Your task to perform on an android device: delete browsing data in the chrome app Image 0: 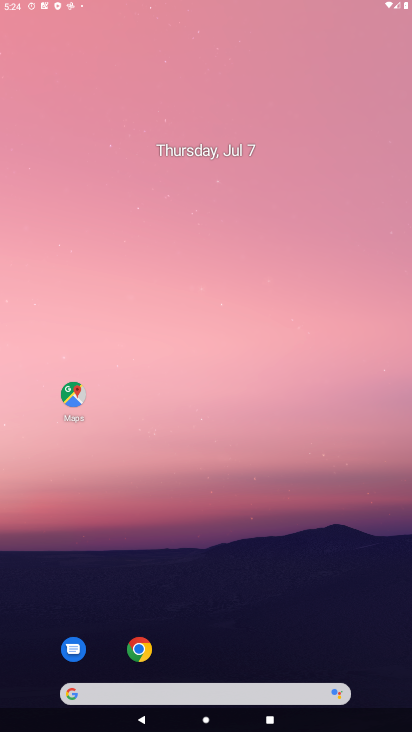
Step 0: click (213, 22)
Your task to perform on an android device: delete browsing data in the chrome app Image 1: 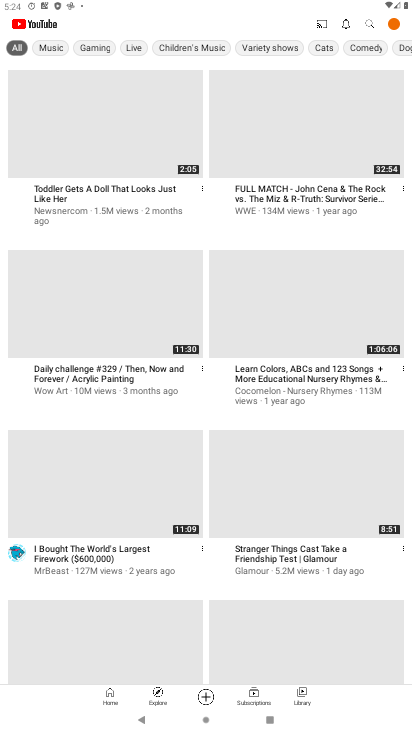
Step 1: press home button
Your task to perform on an android device: delete browsing data in the chrome app Image 2: 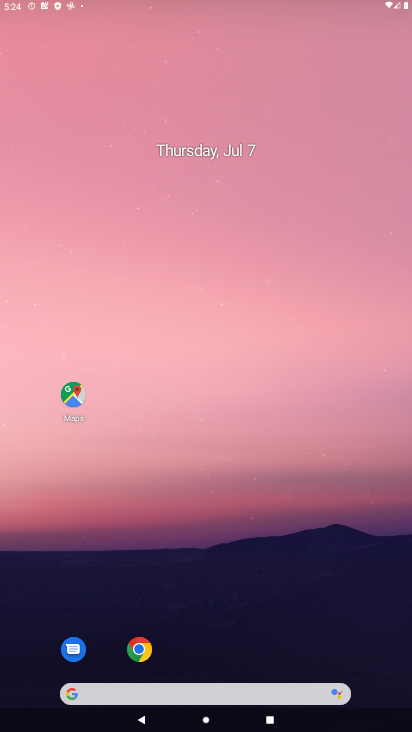
Step 2: drag from (369, 667) to (218, 56)
Your task to perform on an android device: delete browsing data in the chrome app Image 3: 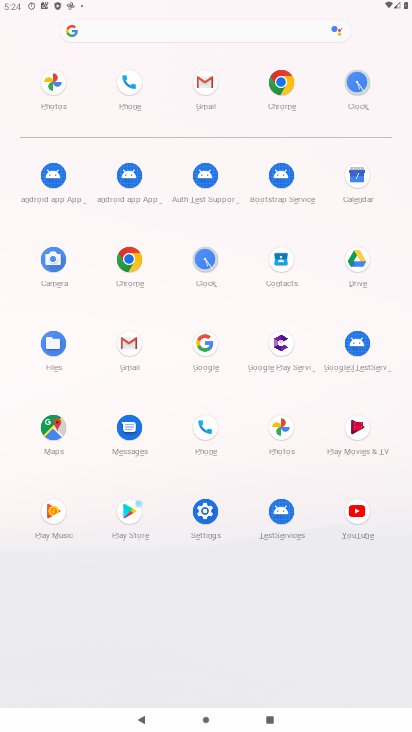
Step 3: click (282, 85)
Your task to perform on an android device: delete browsing data in the chrome app Image 4: 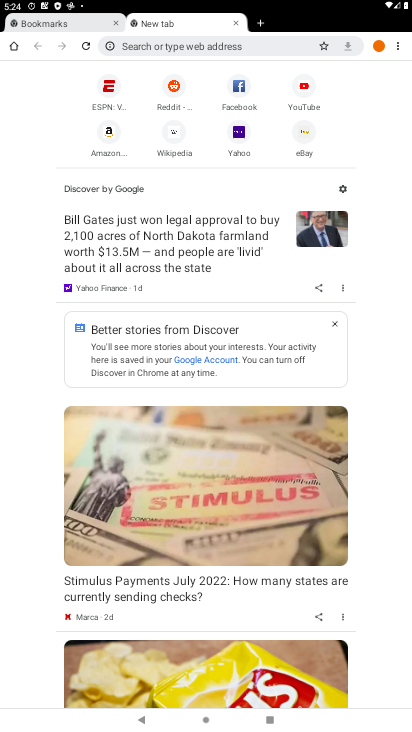
Step 4: click (401, 44)
Your task to perform on an android device: delete browsing data in the chrome app Image 5: 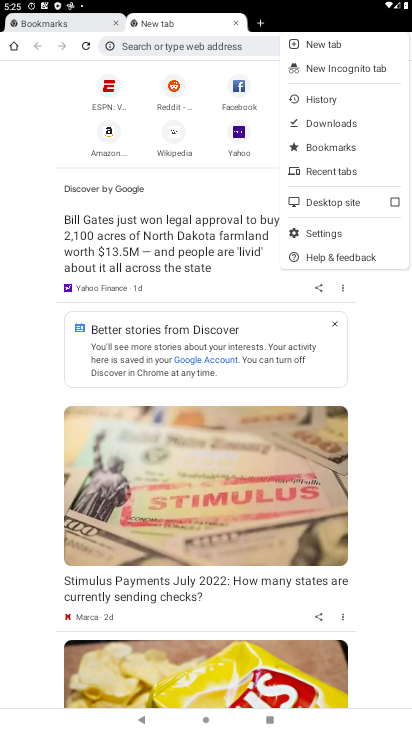
Step 5: click (329, 95)
Your task to perform on an android device: delete browsing data in the chrome app Image 6: 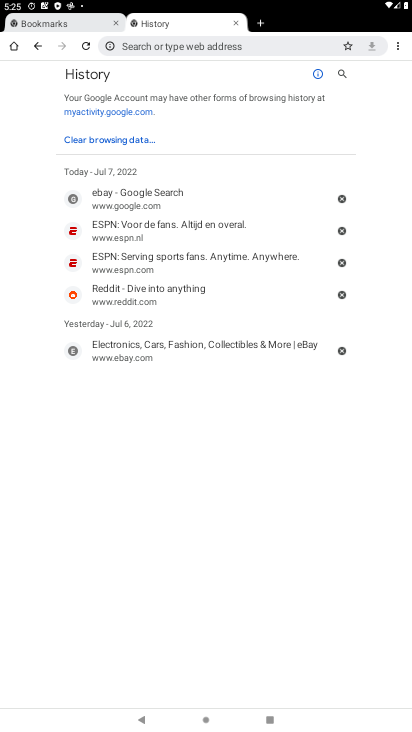
Step 6: click (83, 146)
Your task to perform on an android device: delete browsing data in the chrome app Image 7: 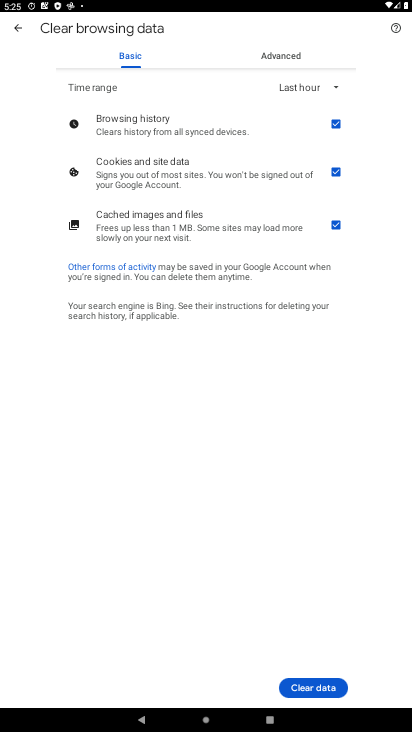
Step 7: click (319, 677)
Your task to perform on an android device: delete browsing data in the chrome app Image 8: 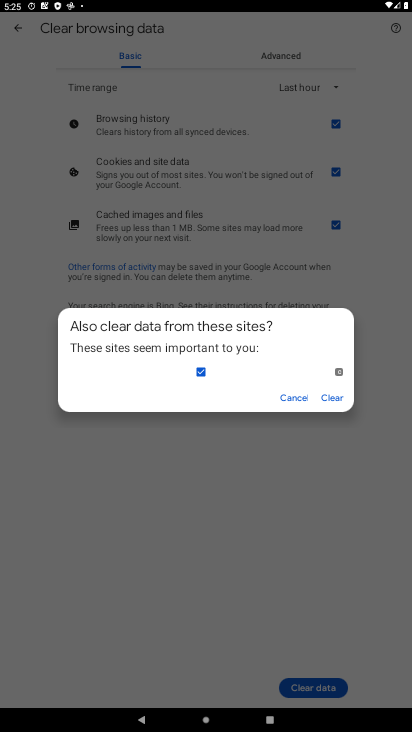
Step 8: click (333, 405)
Your task to perform on an android device: delete browsing data in the chrome app Image 9: 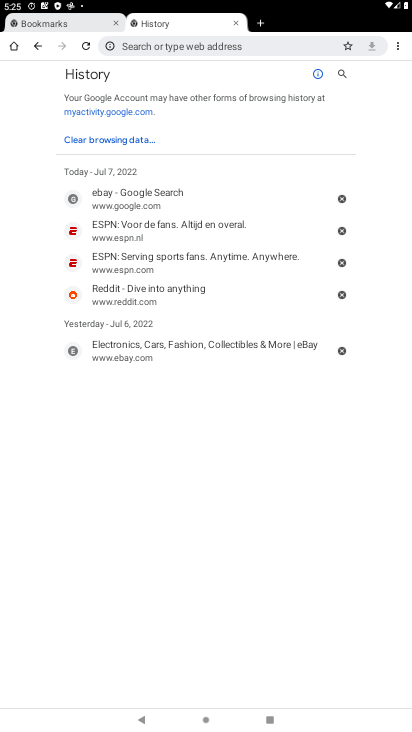
Step 9: click (90, 131)
Your task to perform on an android device: delete browsing data in the chrome app Image 10: 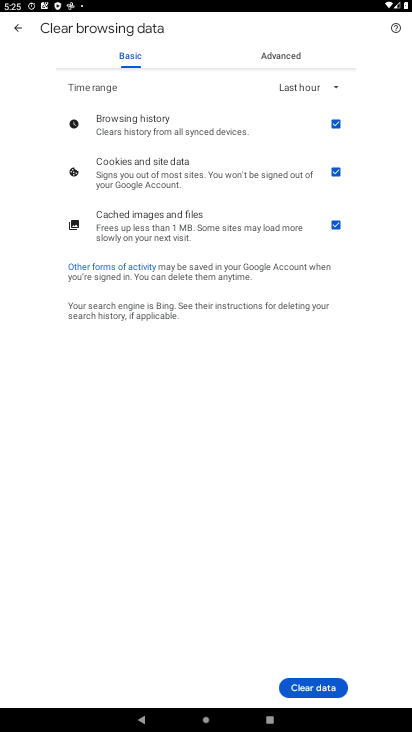
Step 10: click (299, 678)
Your task to perform on an android device: delete browsing data in the chrome app Image 11: 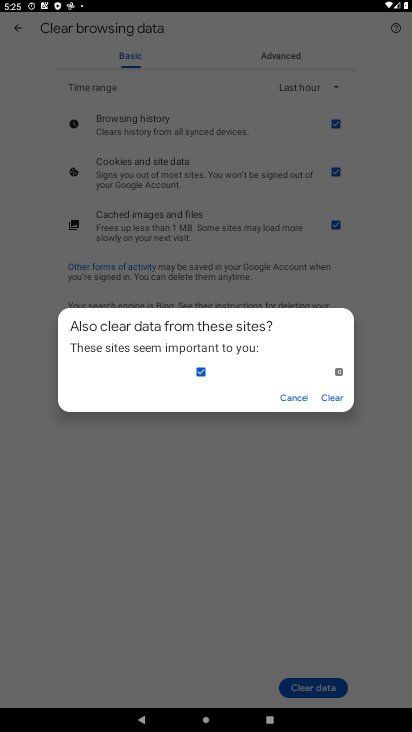
Step 11: click (335, 405)
Your task to perform on an android device: delete browsing data in the chrome app Image 12: 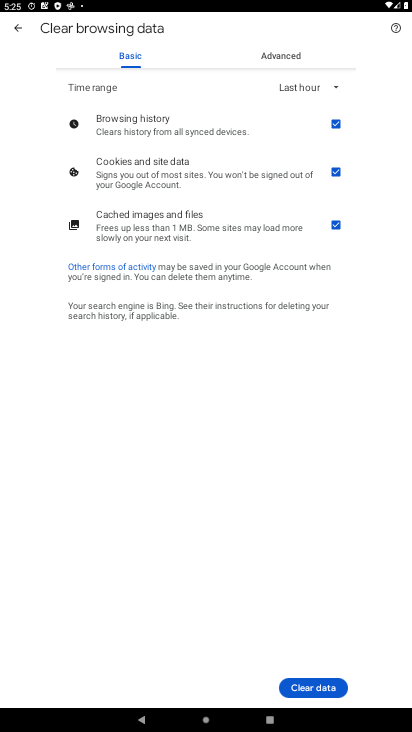
Step 12: click (335, 405)
Your task to perform on an android device: delete browsing data in the chrome app Image 13: 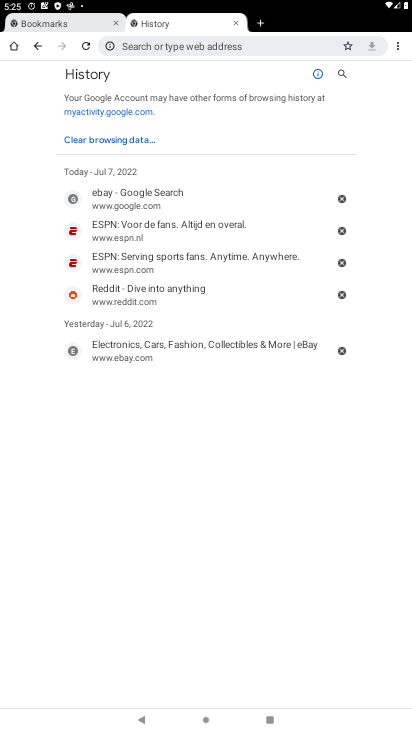
Step 13: task complete